Your task to perform on an android device: What's on my calendar tomorrow? Image 0: 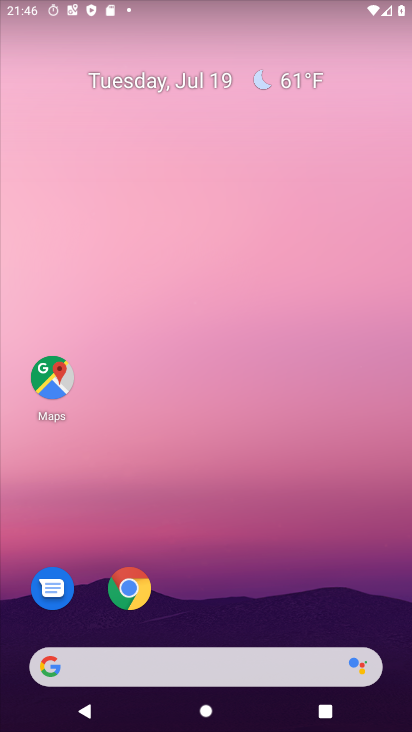
Step 0: press home button
Your task to perform on an android device: What's on my calendar tomorrow? Image 1: 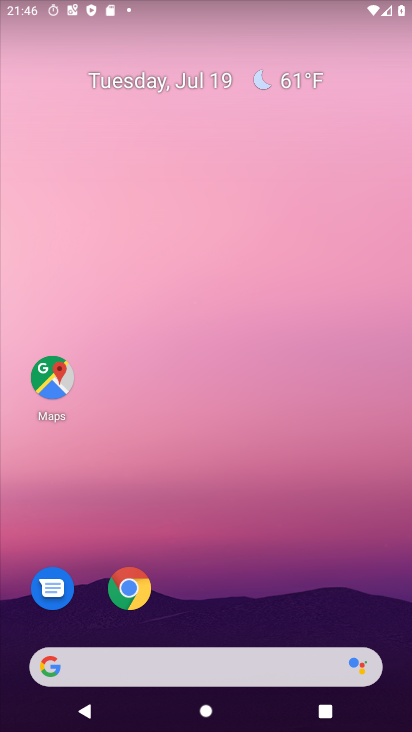
Step 1: drag from (215, 621) to (253, 99)
Your task to perform on an android device: What's on my calendar tomorrow? Image 2: 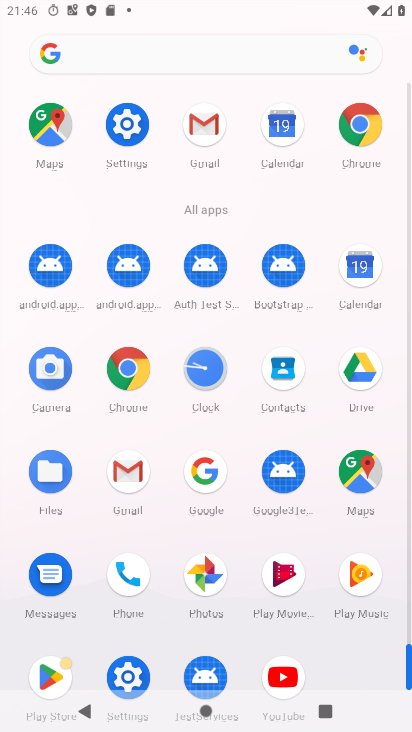
Step 2: click (358, 270)
Your task to perform on an android device: What's on my calendar tomorrow? Image 3: 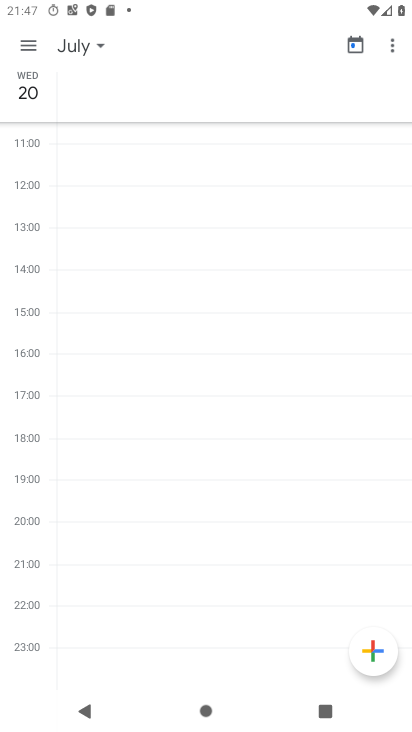
Step 3: task complete